Your task to perform on an android device: toggle notifications settings in the gmail app Image 0: 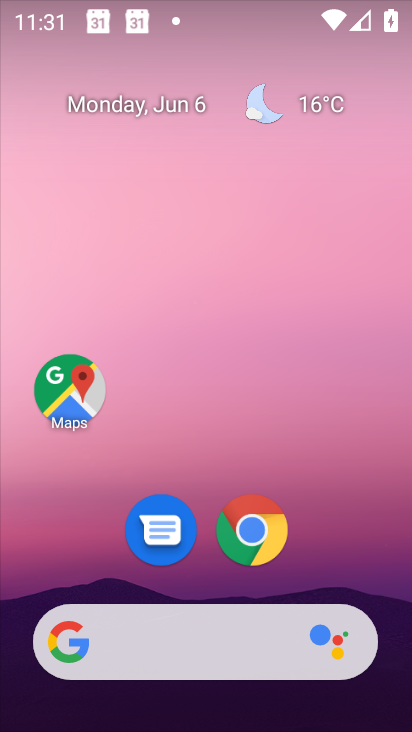
Step 0: drag from (200, 0) to (104, 57)
Your task to perform on an android device: toggle notifications settings in the gmail app Image 1: 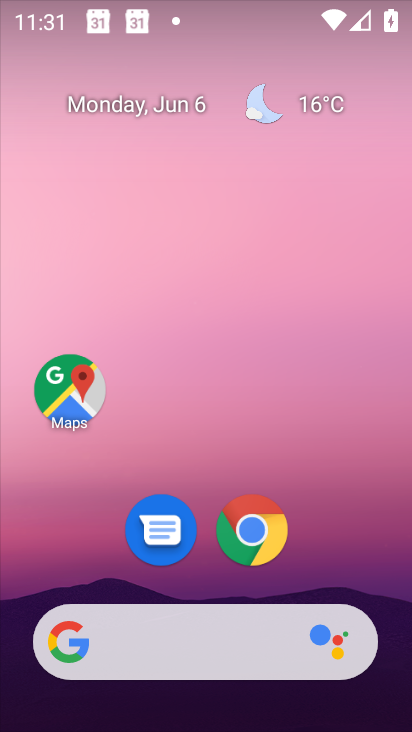
Step 1: drag from (319, 347) to (235, 1)
Your task to perform on an android device: toggle notifications settings in the gmail app Image 2: 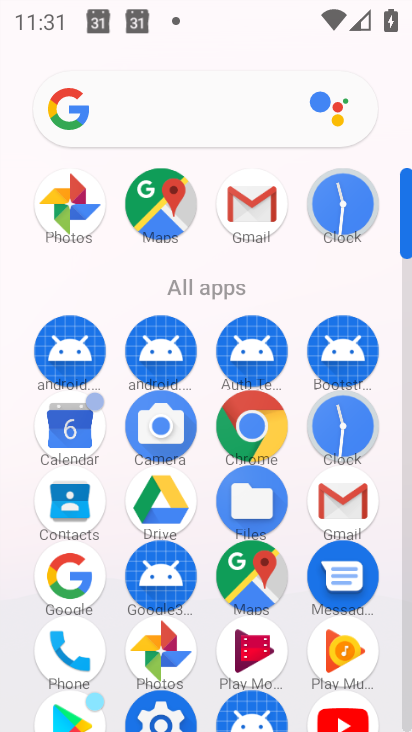
Step 2: click (255, 207)
Your task to perform on an android device: toggle notifications settings in the gmail app Image 3: 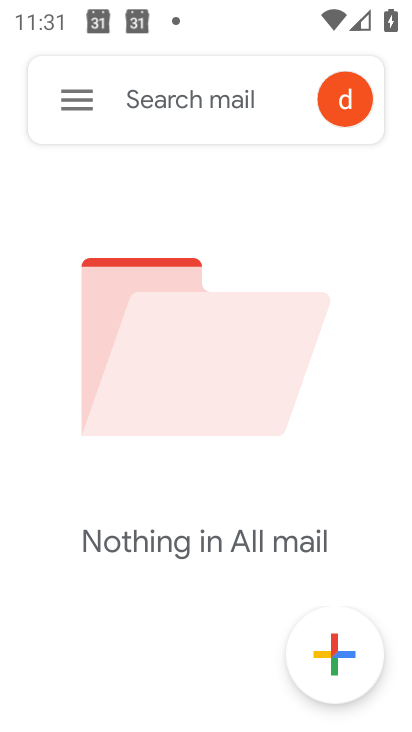
Step 3: click (73, 100)
Your task to perform on an android device: toggle notifications settings in the gmail app Image 4: 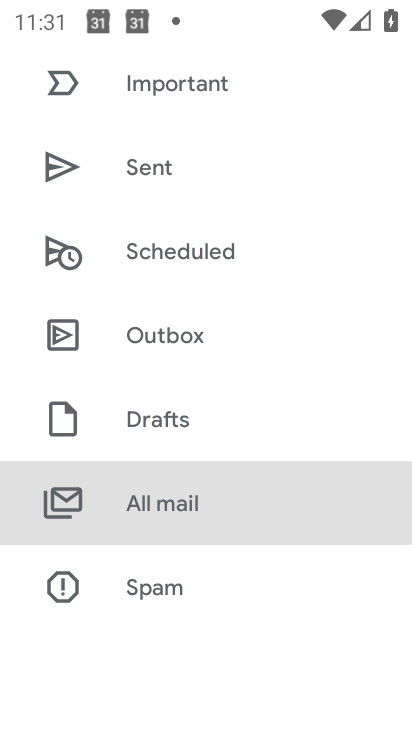
Step 4: drag from (254, 557) to (214, 96)
Your task to perform on an android device: toggle notifications settings in the gmail app Image 5: 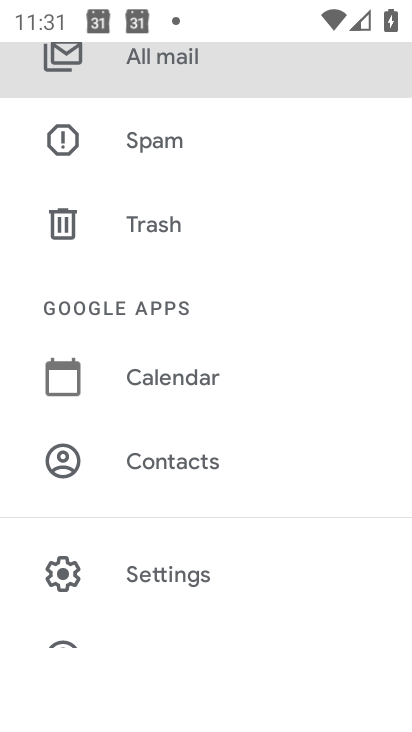
Step 5: click (209, 585)
Your task to perform on an android device: toggle notifications settings in the gmail app Image 6: 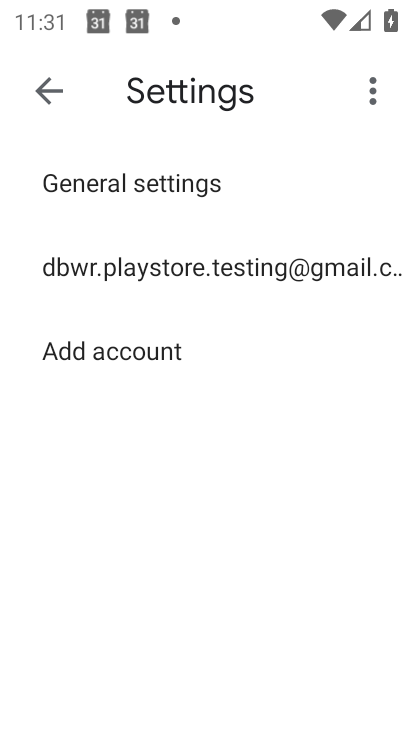
Step 6: click (197, 267)
Your task to perform on an android device: toggle notifications settings in the gmail app Image 7: 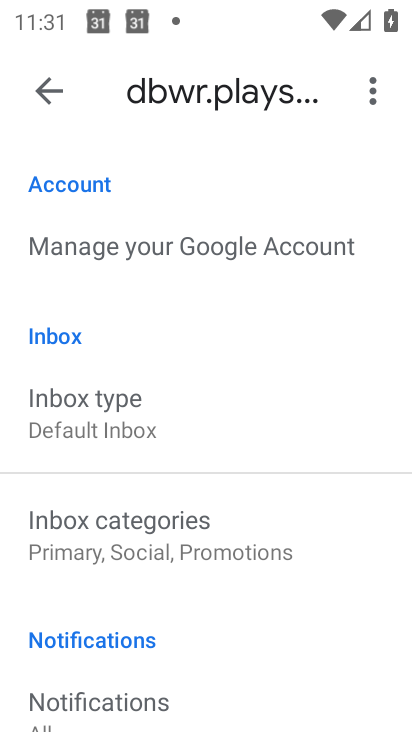
Step 7: click (175, 714)
Your task to perform on an android device: toggle notifications settings in the gmail app Image 8: 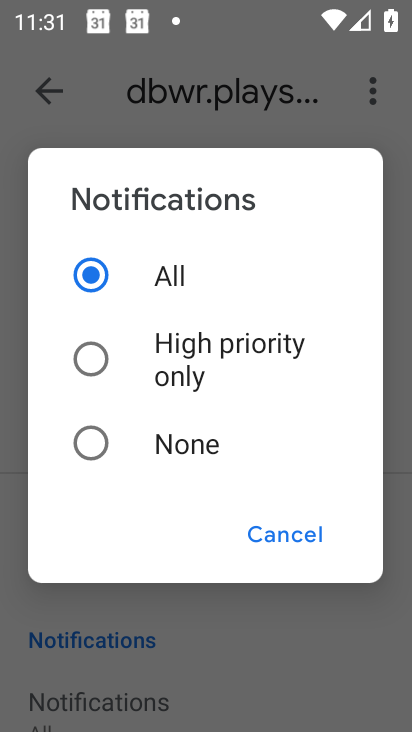
Step 8: click (188, 446)
Your task to perform on an android device: toggle notifications settings in the gmail app Image 9: 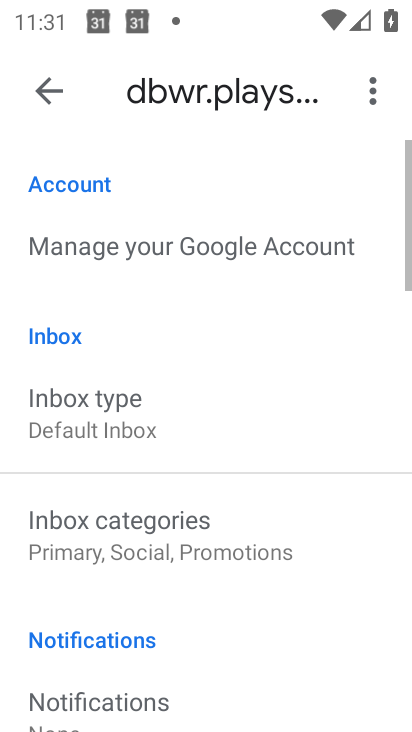
Step 9: task complete